Your task to perform on an android device: Is it going to rain tomorrow? Image 0: 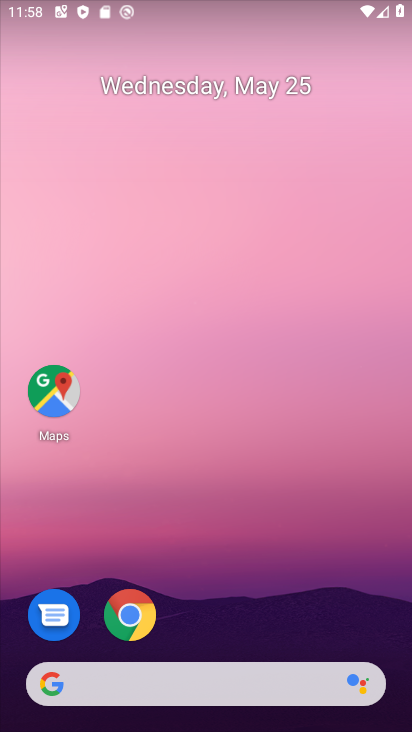
Step 0: drag from (220, 641) to (178, 160)
Your task to perform on an android device: Is it going to rain tomorrow? Image 1: 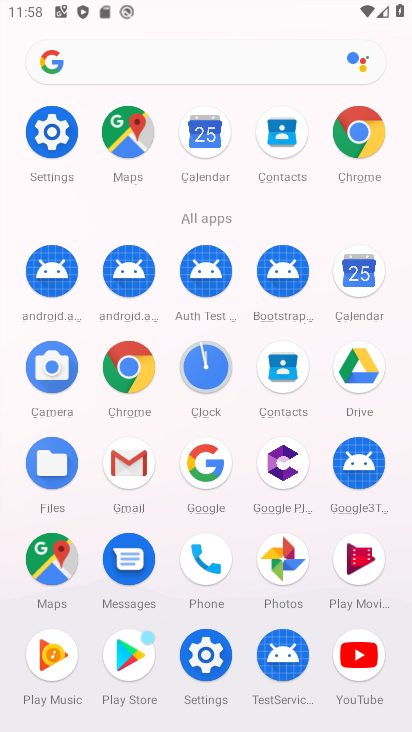
Step 1: click (366, 131)
Your task to perform on an android device: Is it going to rain tomorrow? Image 2: 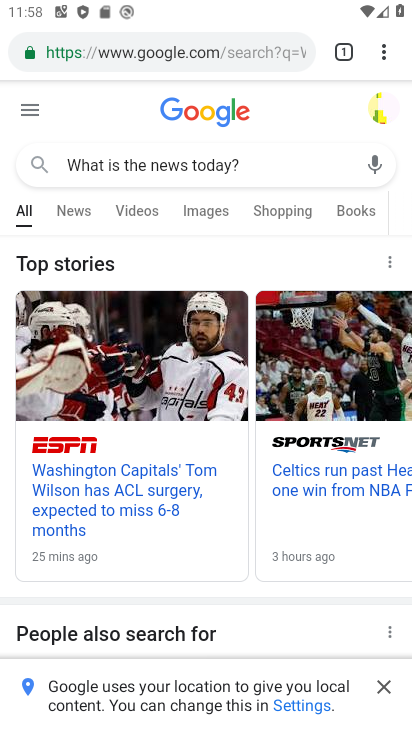
Step 2: click (280, 167)
Your task to perform on an android device: Is it going to rain tomorrow? Image 3: 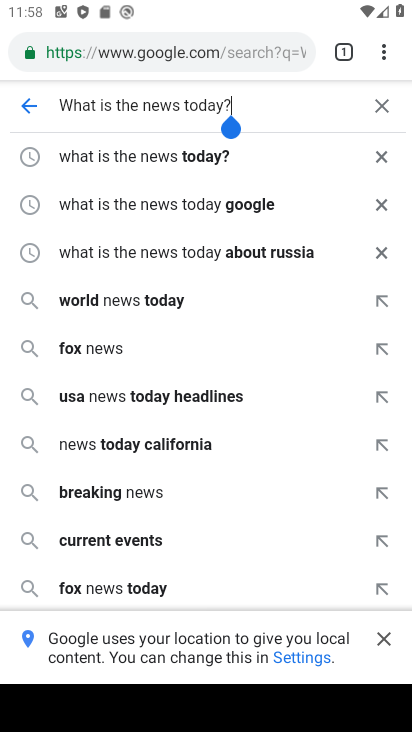
Step 3: click (382, 105)
Your task to perform on an android device: Is it going to rain tomorrow? Image 4: 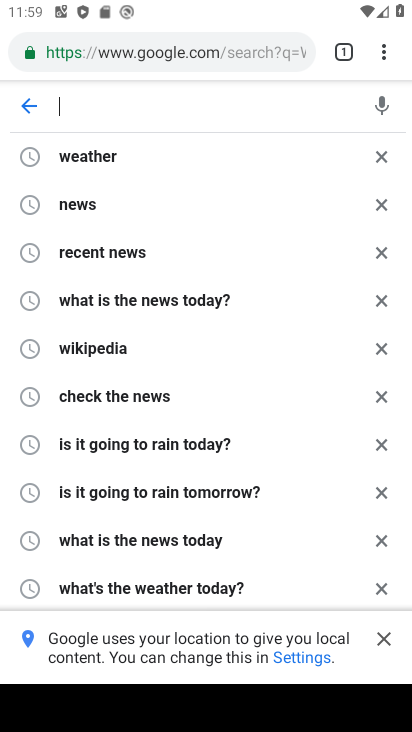
Step 4: click (167, 498)
Your task to perform on an android device: Is it going to rain tomorrow? Image 5: 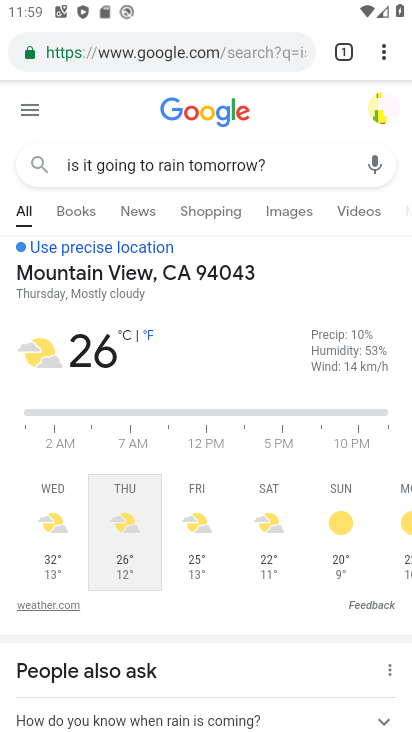
Step 5: click (199, 499)
Your task to perform on an android device: Is it going to rain tomorrow? Image 6: 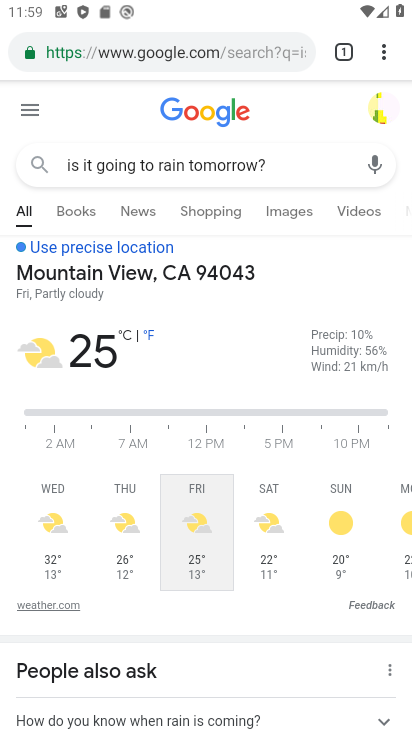
Step 6: task complete